Your task to perform on an android device: Open maps Image 0: 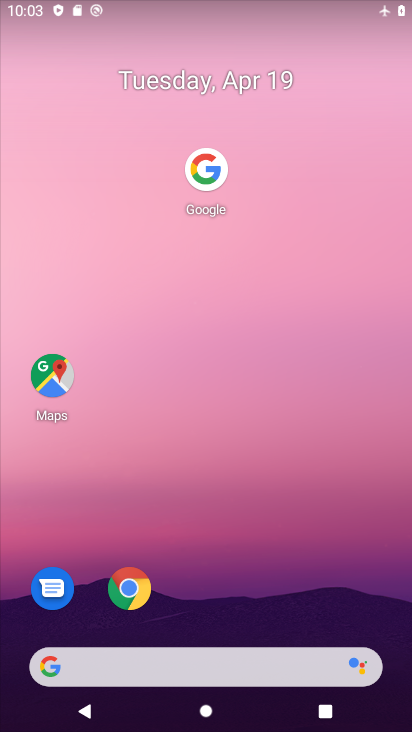
Step 0: click (55, 385)
Your task to perform on an android device: Open maps Image 1: 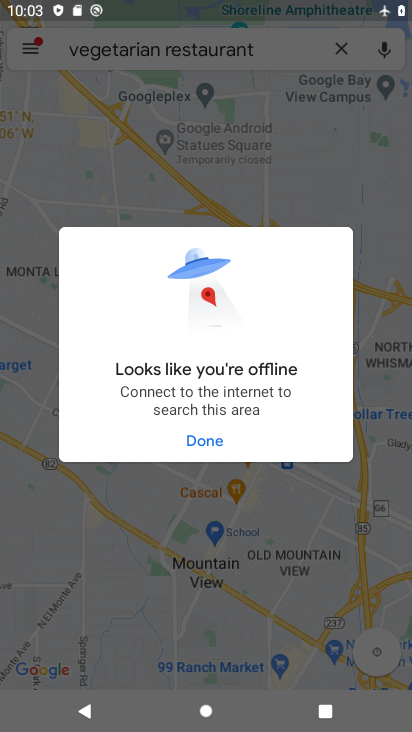
Step 1: click (200, 440)
Your task to perform on an android device: Open maps Image 2: 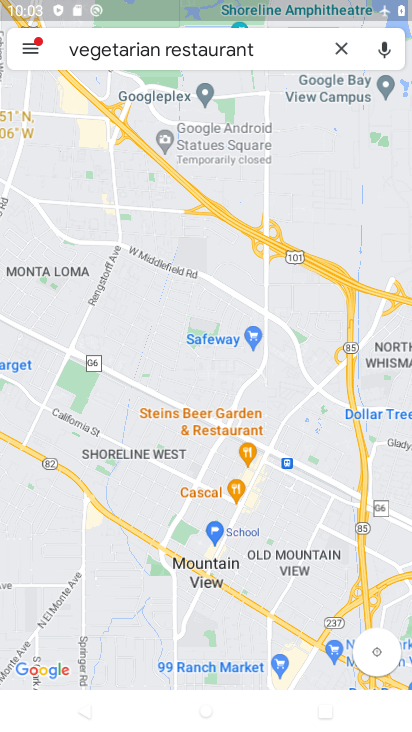
Step 2: task complete